Your task to perform on an android device: turn off picture-in-picture Image 0: 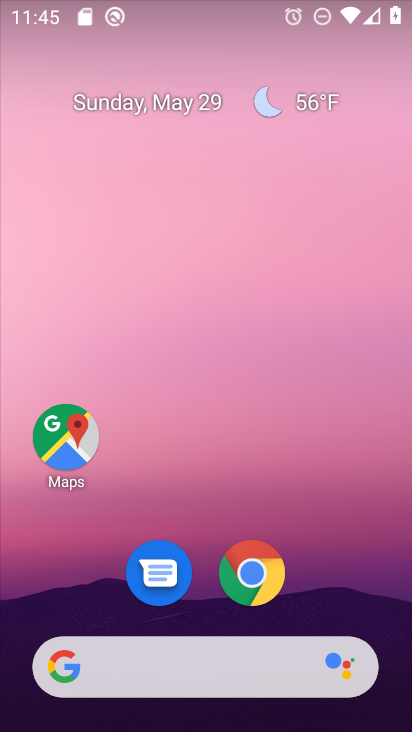
Step 0: drag from (271, 611) to (333, 45)
Your task to perform on an android device: turn off picture-in-picture Image 1: 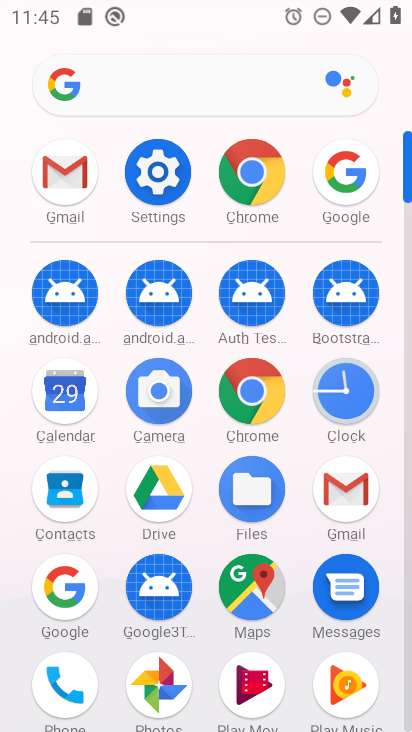
Step 1: click (131, 167)
Your task to perform on an android device: turn off picture-in-picture Image 2: 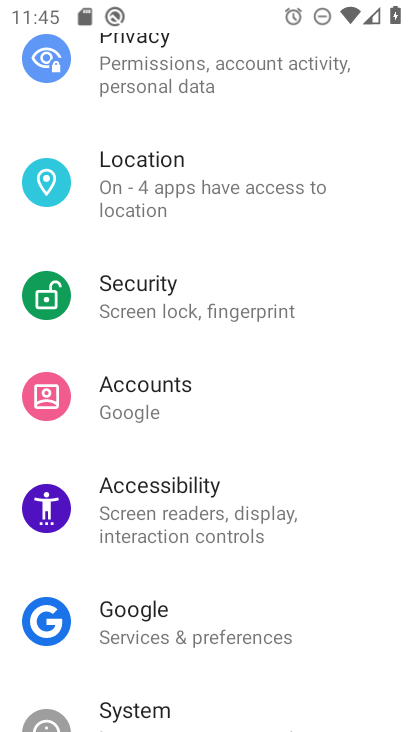
Step 2: drag from (216, 669) to (382, 728)
Your task to perform on an android device: turn off picture-in-picture Image 3: 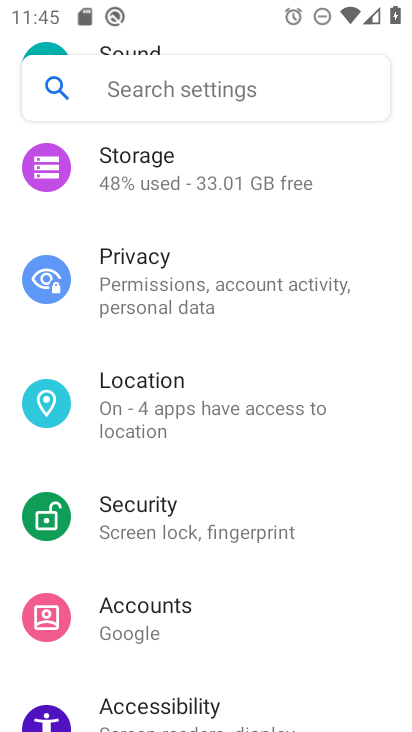
Step 3: drag from (258, 231) to (271, 729)
Your task to perform on an android device: turn off picture-in-picture Image 4: 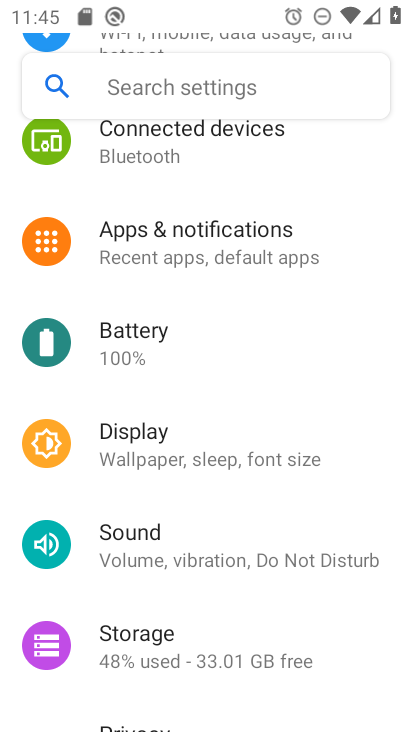
Step 4: click (195, 241)
Your task to perform on an android device: turn off picture-in-picture Image 5: 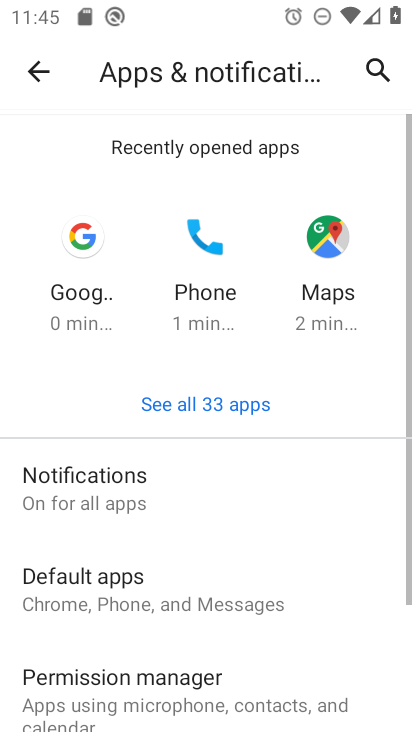
Step 5: drag from (172, 482) to (133, 168)
Your task to perform on an android device: turn off picture-in-picture Image 6: 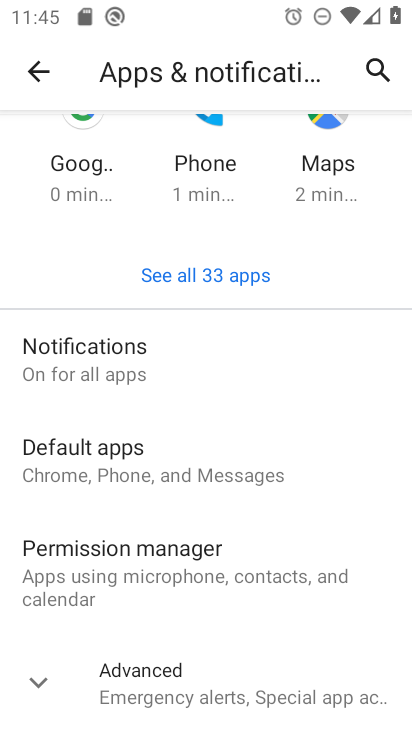
Step 6: click (185, 686)
Your task to perform on an android device: turn off picture-in-picture Image 7: 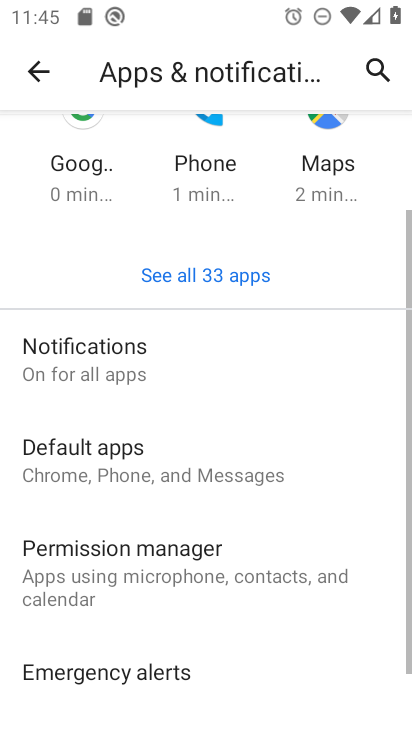
Step 7: drag from (185, 688) to (305, 162)
Your task to perform on an android device: turn off picture-in-picture Image 8: 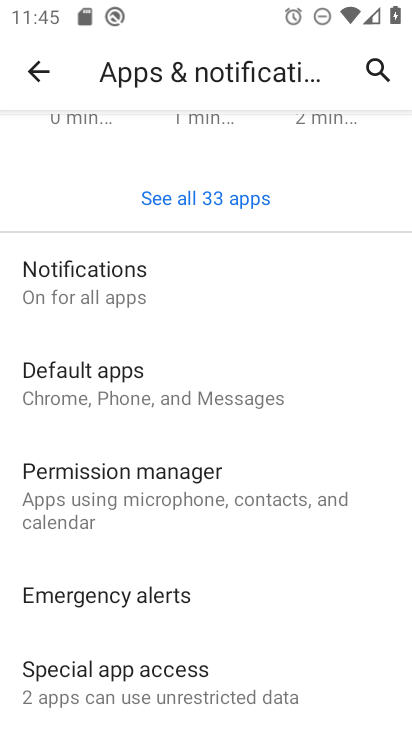
Step 8: click (207, 668)
Your task to perform on an android device: turn off picture-in-picture Image 9: 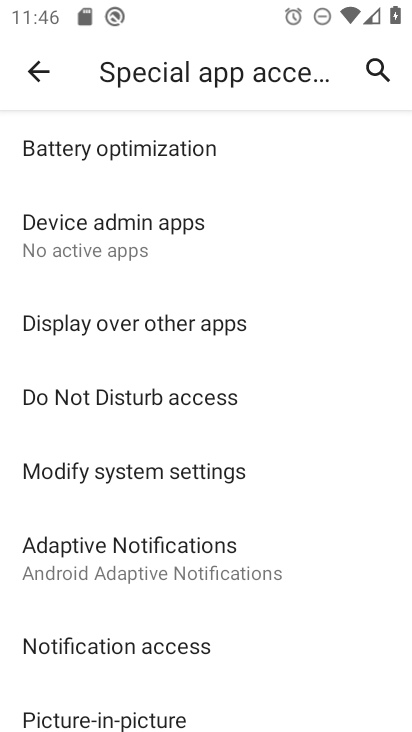
Step 9: drag from (323, 658) to (313, 193)
Your task to perform on an android device: turn off picture-in-picture Image 10: 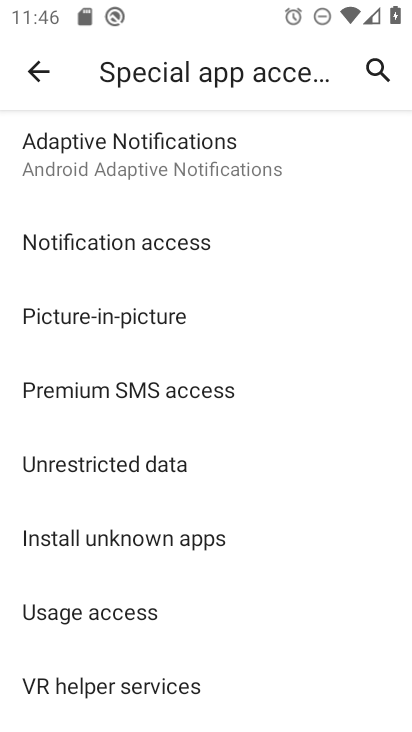
Step 10: click (161, 308)
Your task to perform on an android device: turn off picture-in-picture Image 11: 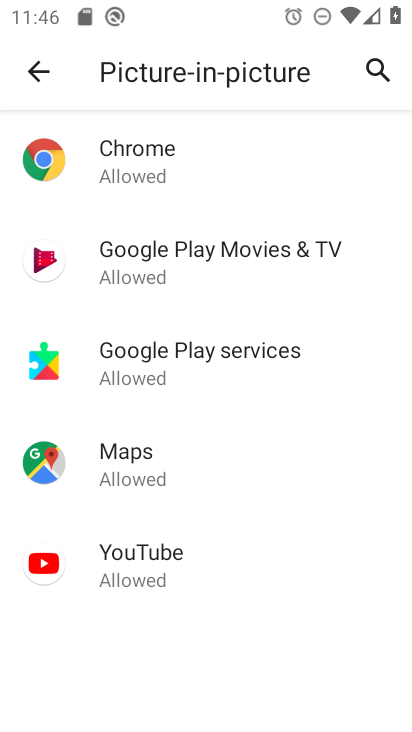
Step 11: click (306, 153)
Your task to perform on an android device: turn off picture-in-picture Image 12: 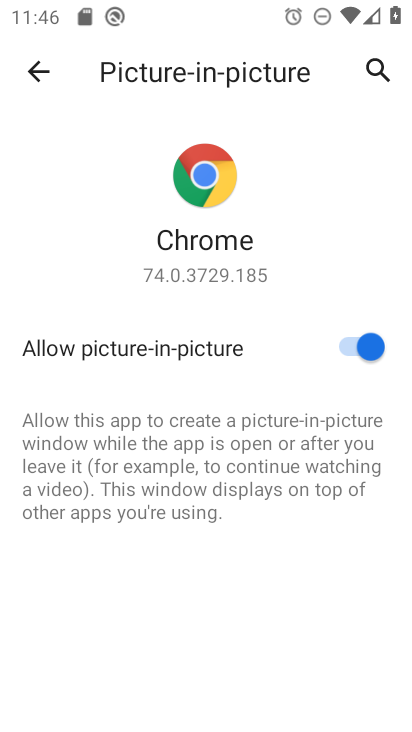
Step 12: click (355, 346)
Your task to perform on an android device: turn off picture-in-picture Image 13: 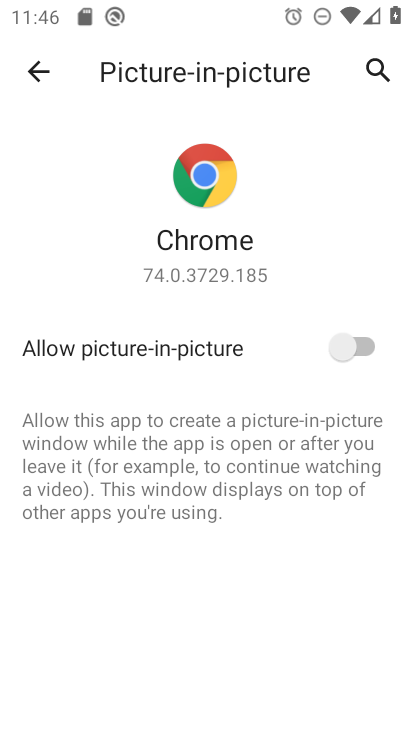
Step 13: press back button
Your task to perform on an android device: turn off picture-in-picture Image 14: 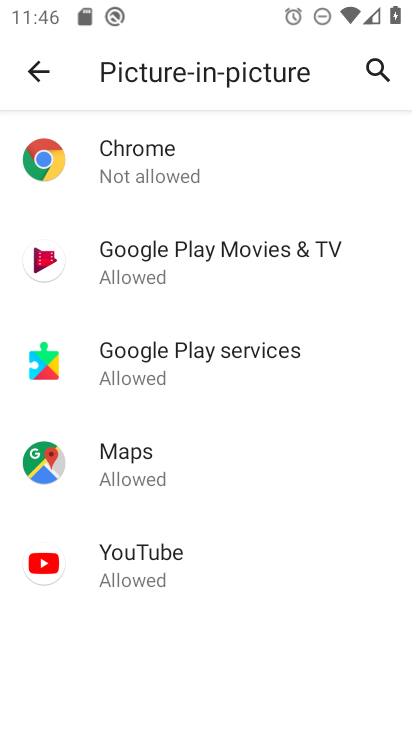
Step 14: click (295, 265)
Your task to perform on an android device: turn off picture-in-picture Image 15: 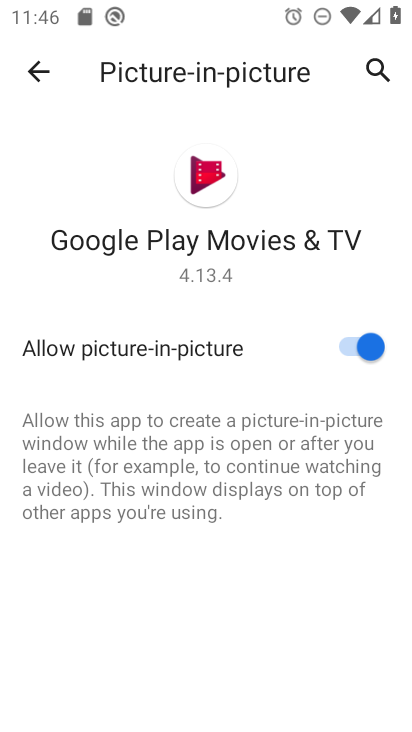
Step 15: click (355, 342)
Your task to perform on an android device: turn off picture-in-picture Image 16: 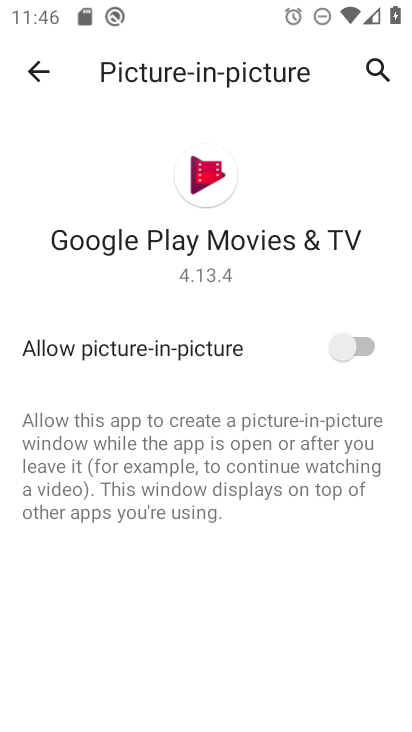
Step 16: press back button
Your task to perform on an android device: turn off picture-in-picture Image 17: 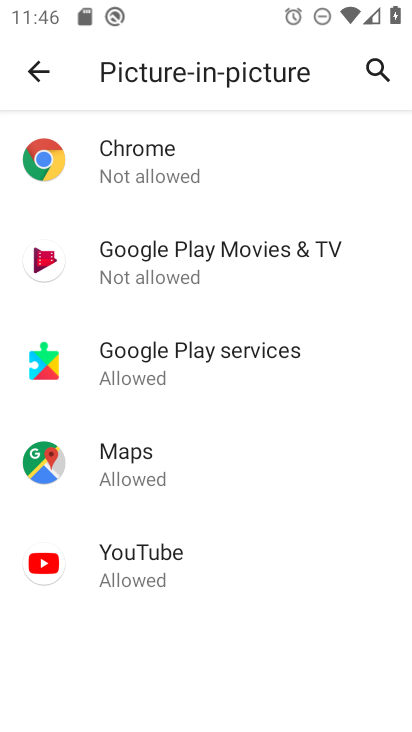
Step 17: click (239, 370)
Your task to perform on an android device: turn off picture-in-picture Image 18: 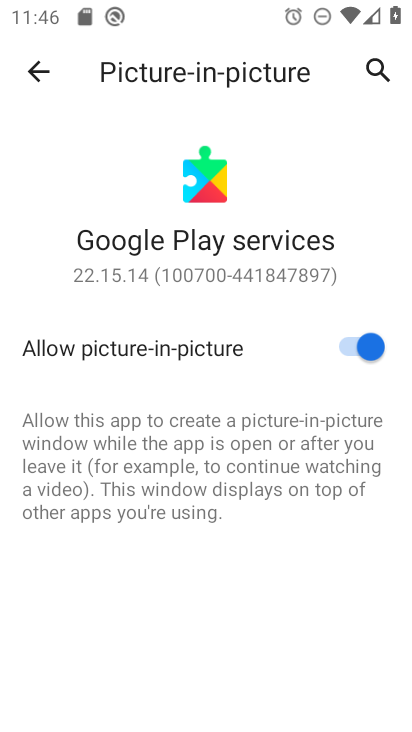
Step 18: click (347, 344)
Your task to perform on an android device: turn off picture-in-picture Image 19: 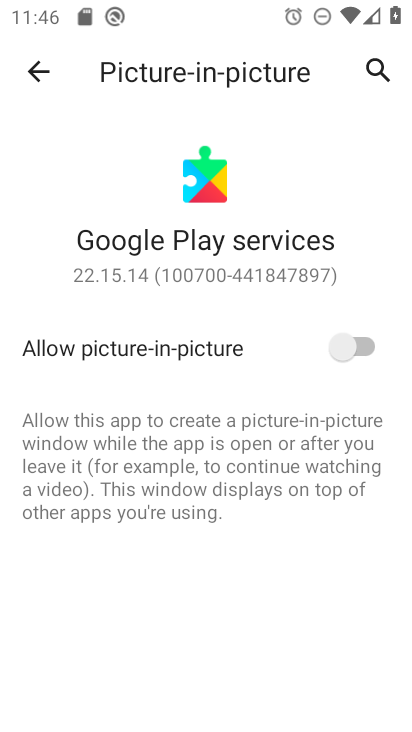
Step 19: press back button
Your task to perform on an android device: turn off picture-in-picture Image 20: 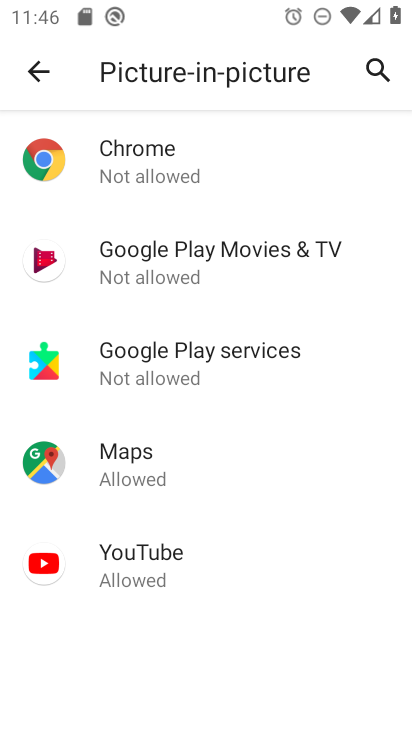
Step 20: click (209, 464)
Your task to perform on an android device: turn off picture-in-picture Image 21: 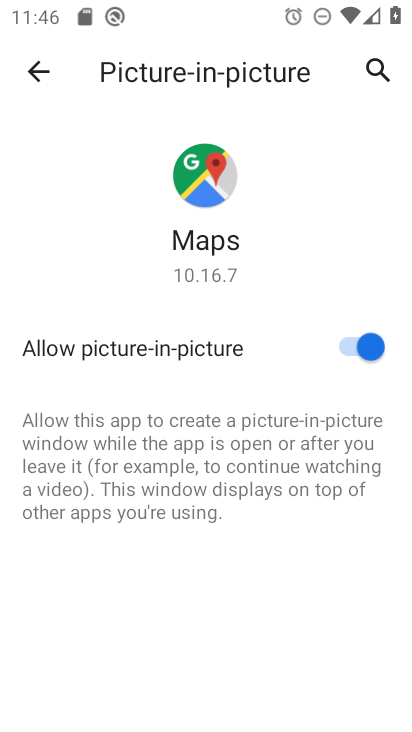
Step 21: click (343, 346)
Your task to perform on an android device: turn off picture-in-picture Image 22: 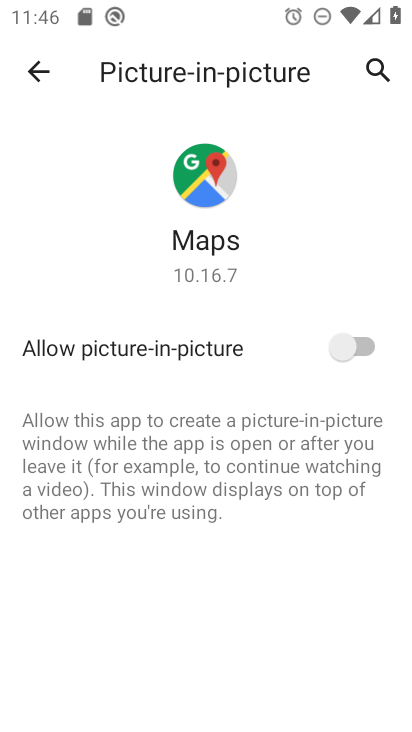
Step 22: press back button
Your task to perform on an android device: turn off picture-in-picture Image 23: 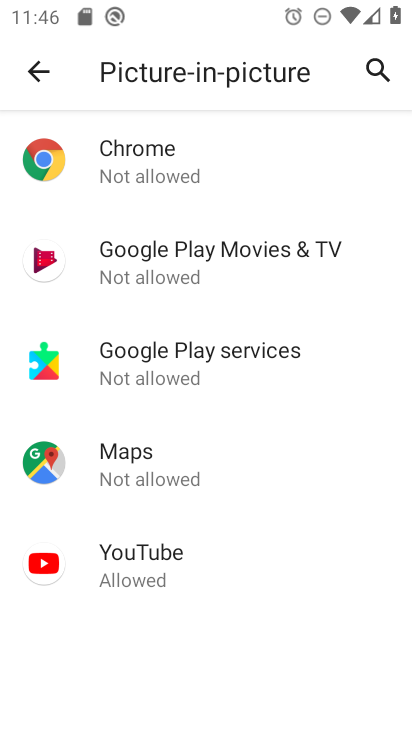
Step 23: click (288, 552)
Your task to perform on an android device: turn off picture-in-picture Image 24: 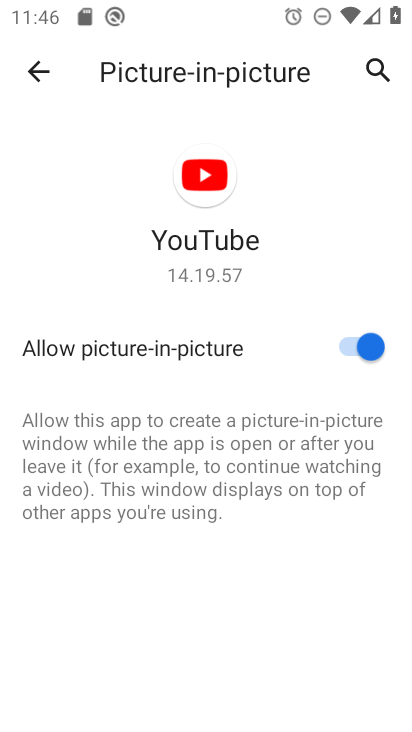
Step 24: click (356, 337)
Your task to perform on an android device: turn off picture-in-picture Image 25: 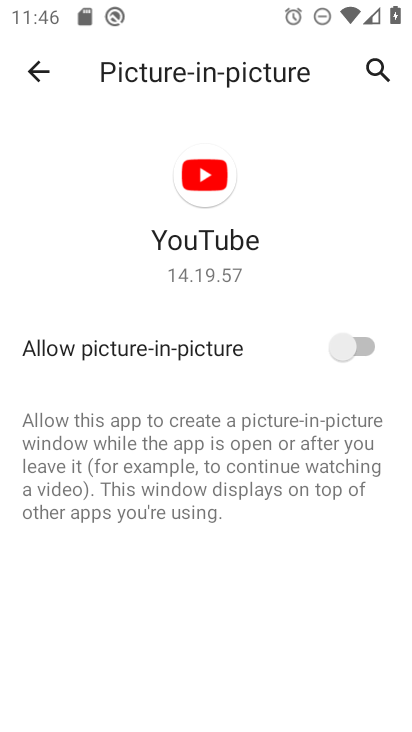
Step 25: task complete